Your task to perform on an android device: turn on the 12-hour format for clock Image 0: 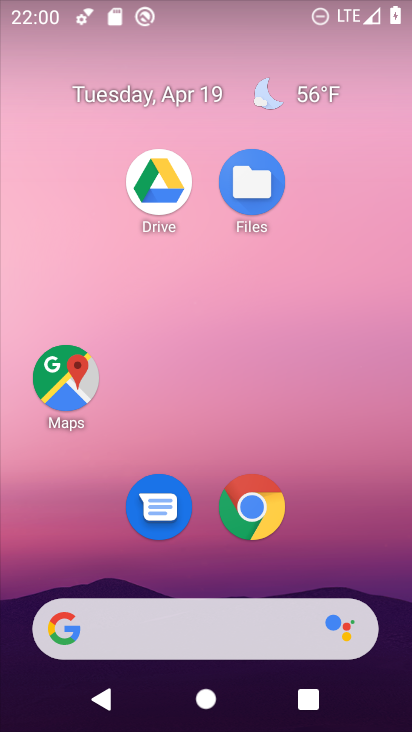
Step 0: drag from (355, 521) to (406, 60)
Your task to perform on an android device: turn on the 12-hour format for clock Image 1: 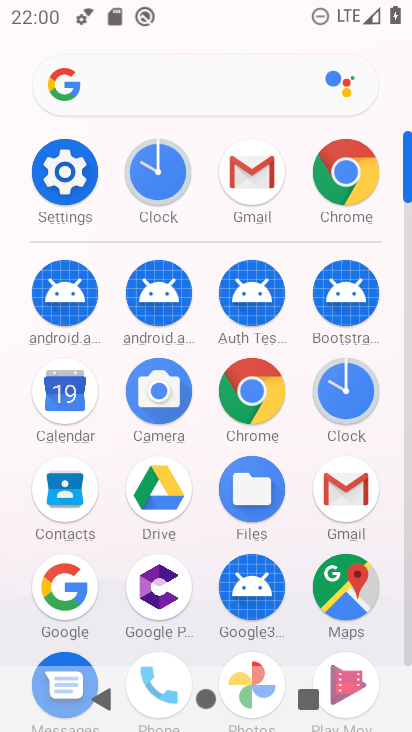
Step 1: click (339, 388)
Your task to perform on an android device: turn on the 12-hour format for clock Image 2: 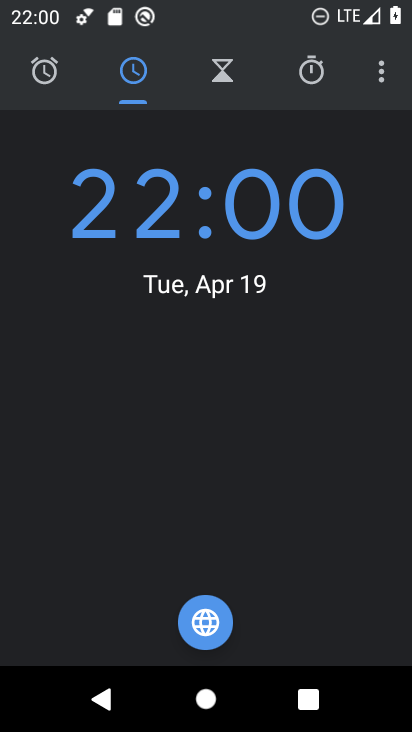
Step 2: click (384, 73)
Your task to perform on an android device: turn on the 12-hour format for clock Image 3: 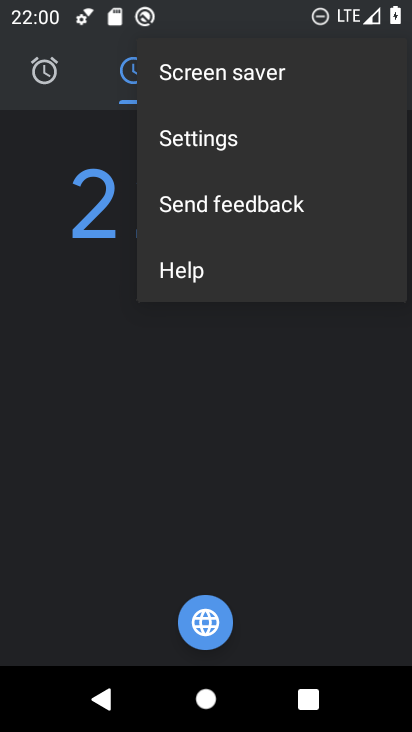
Step 3: click (309, 145)
Your task to perform on an android device: turn on the 12-hour format for clock Image 4: 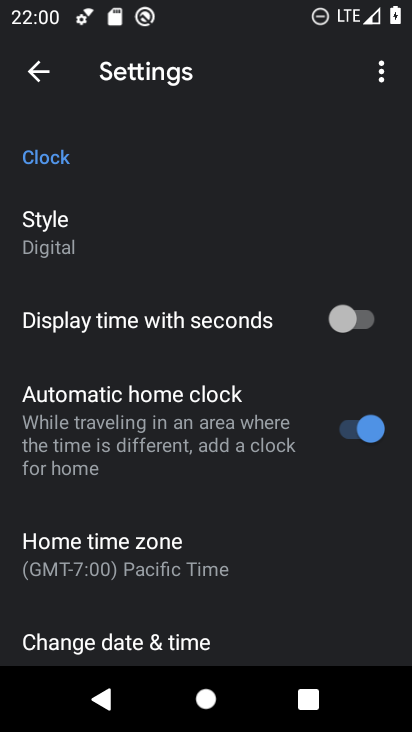
Step 4: drag from (264, 513) to (289, 170)
Your task to perform on an android device: turn on the 12-hour format for clock Image 5: 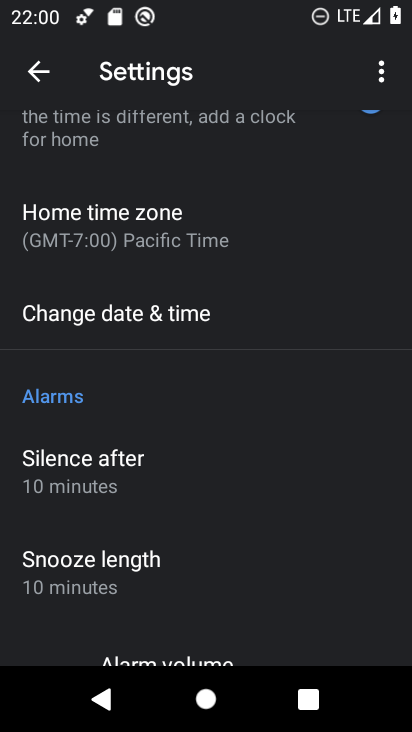
Step 5: click (225, 315)
Your task to perform on an android device: turn on the 12-hour format for clock Image 6: 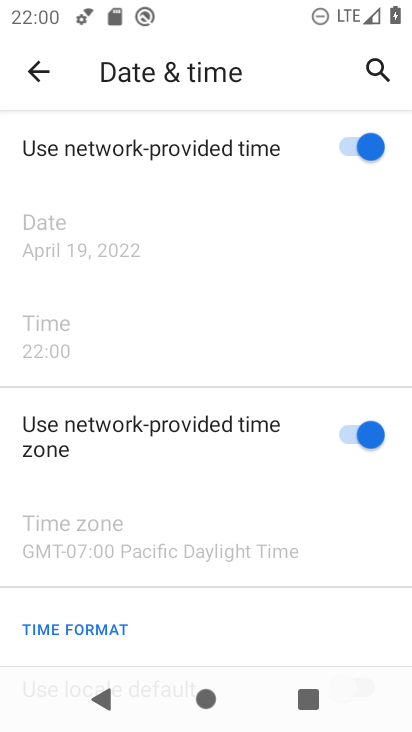
Step 6: drag from (254, 535) to (301, 169)
Your task to perform on an android device: turn on the 12-hour format for clock Image 7: 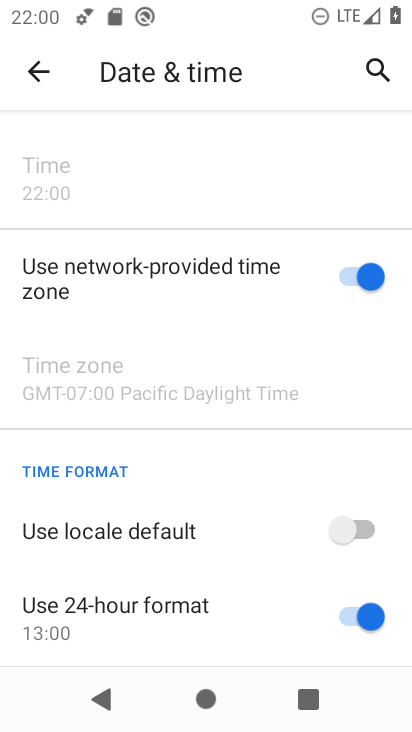
Step 7: click (355, 521)
Your task to perform on an android device: turn on the 12-hour format for clock Image 8: 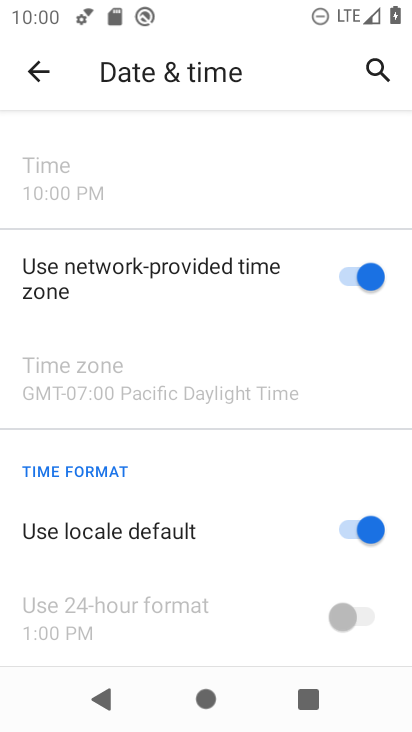
Step 8: task complete